Your task to perform on an android device: turn on the 12-hour format for clock Image 0: 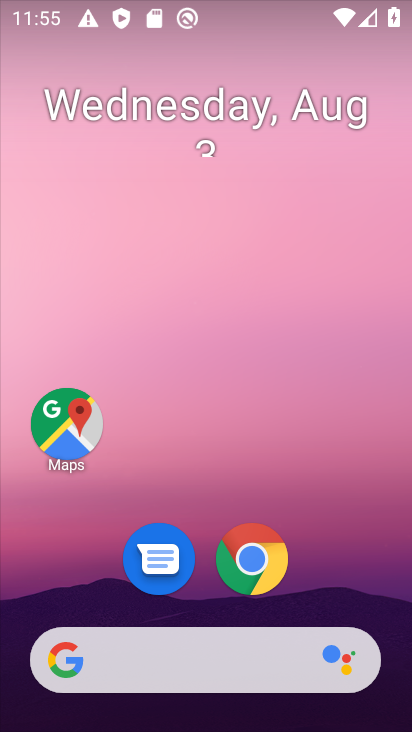
Step 0: drag from (203, 670) to (234, 111)
Your task to perform on an android device: turn on the 12-hour format for clock Image 1: 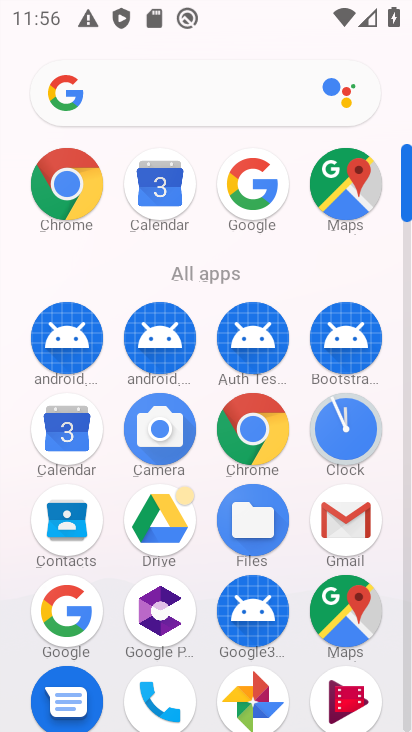
Step 1: click (345, 431)
Your task to perform on an android device: turn on the 12-hour format for clock Image 2: 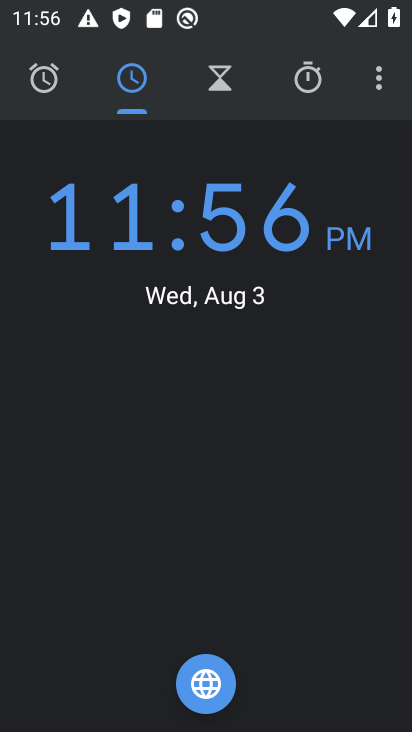
Step 2: click (379, 81)
Your task to perform on an android device: turn on the 12-hour format for clock Image 3: 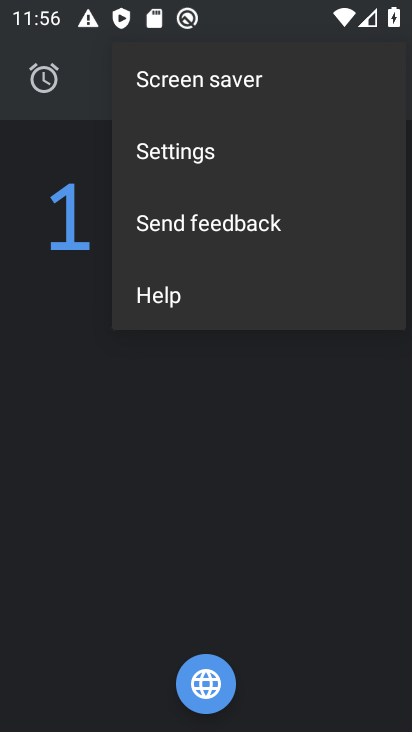
Step 3: click (208, 152)
Your task to perform on an android device: turn on the 12-hour format for clock Image 4: 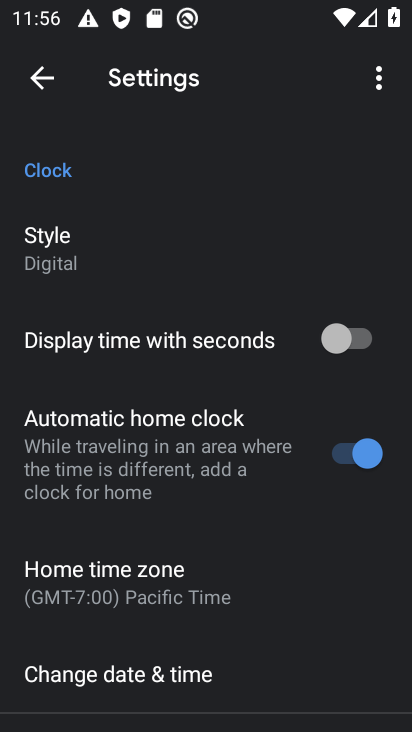
Step 4: drag from (143, 618) to (143, 404)
Your task to perform on an android device: turn on the 12-hour format for clock Image 5: 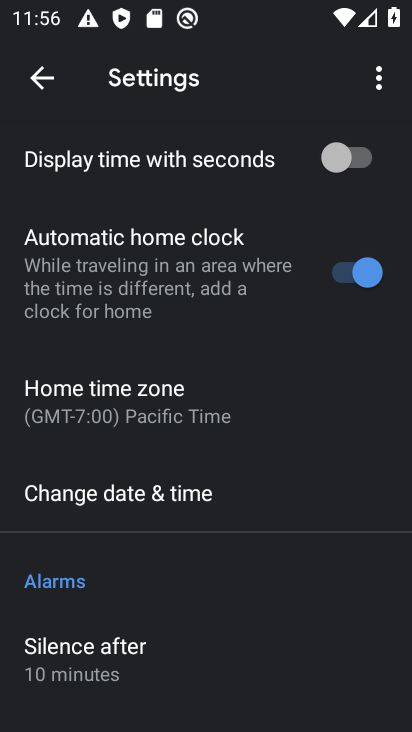
Step 5: click (161, 491)
Your task to perform on an android device: turn on the 12-hour format for clock Image 6: 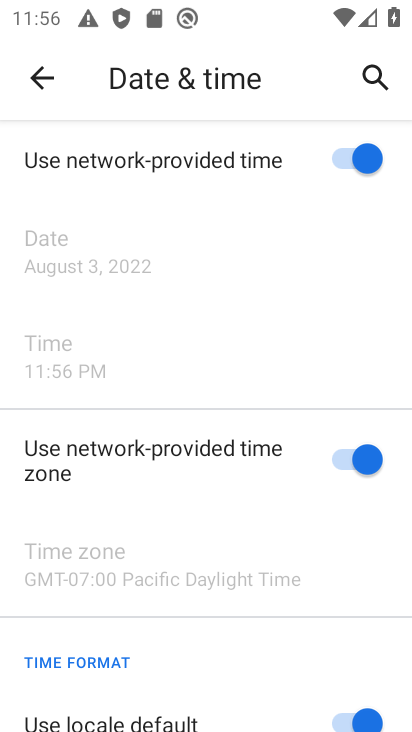
Step 6: task complete